Your task to perform on an android device: Search for sushi restaurants on Maps Image 0: 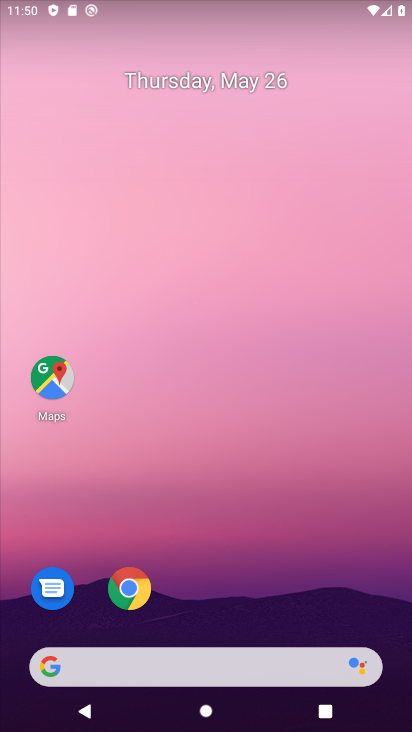
Step 0: drag from (188, 624) to (90, 5)
Your task to perform on an android device: Search for sushi restaurants on Maps Image 1: 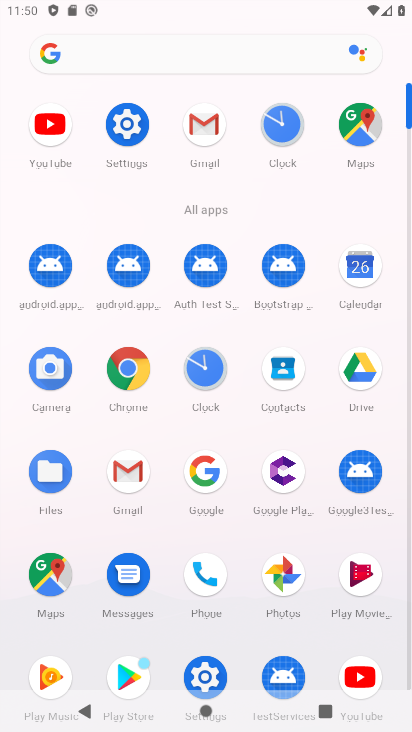
Step 1: click (57, 555)
Your task to perform on an android device: Search for sushi restaurants on Maps Image 2: 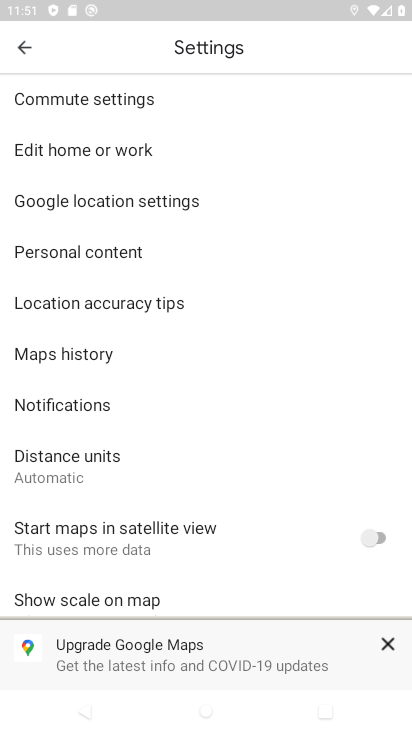
Step 2: click (23, 48)
Your task to perform on an android device: Search for sushi restaurants on Maps Image 3: 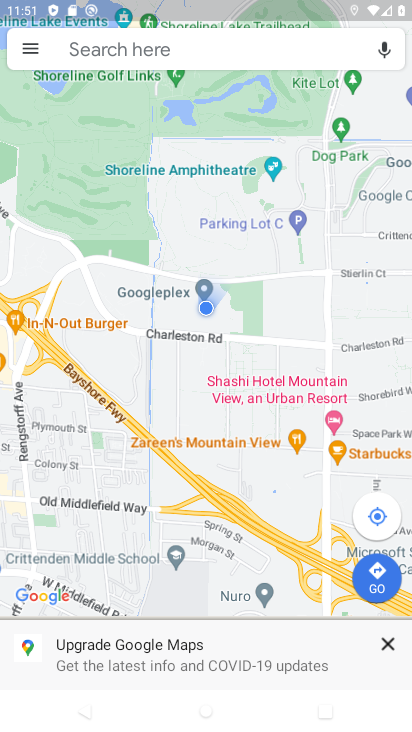
Step 3: click (181, 59)
Your task to perform on an android device: Search for sushi restaurants on Maps Image 4: 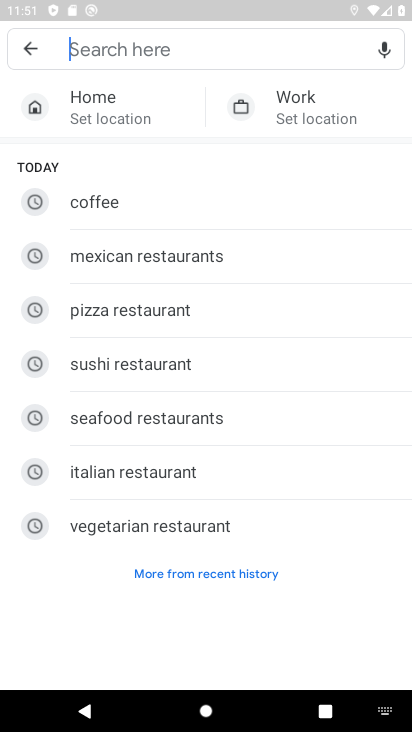
Step 4: click (153, 375)
Your task to perform on an android device: Search for sushi restaurants on Maps Image 5: 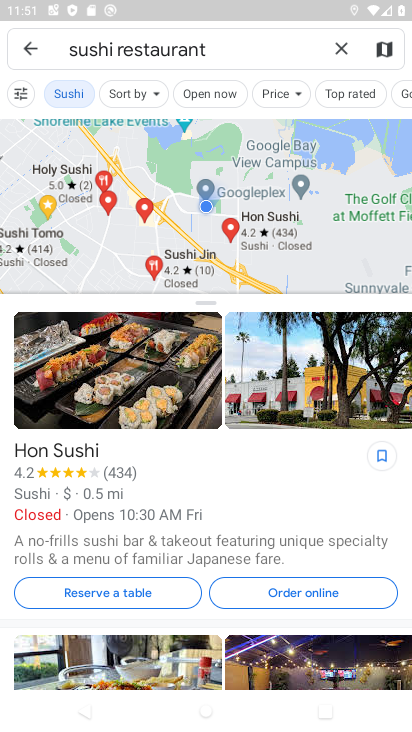
Step 5: task complete